Your task to perform on an android device: open a bookmark in the chrome app Image 0: 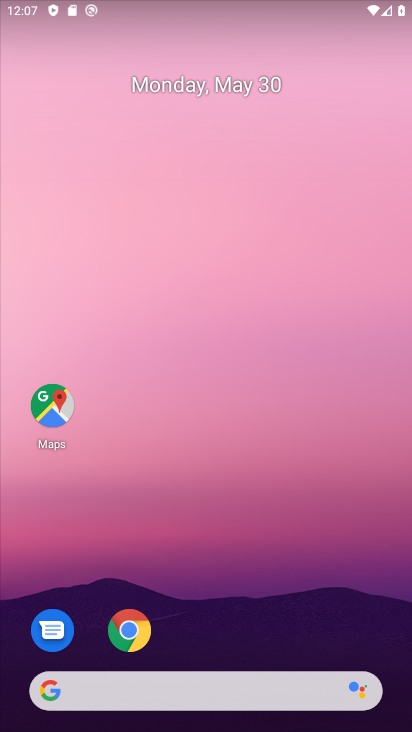
Step 0: click (125, 624)
Your task to perform on an android device: open a bookmark in the chrome app Image 1: 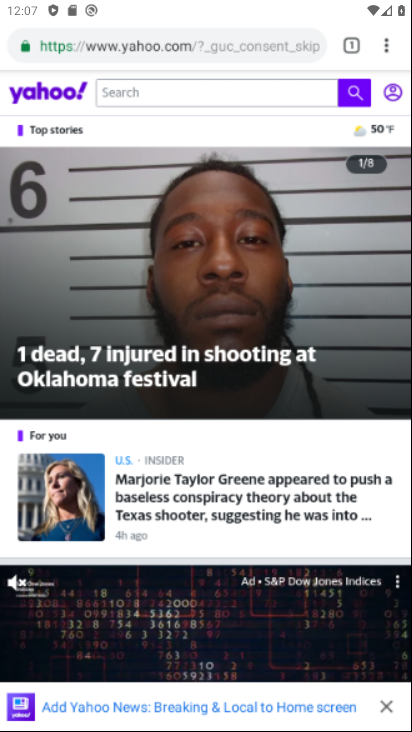
Step 1: click (383, 44)
Your task to perform on an android device: open a bookmark in the chrome app Image 2: 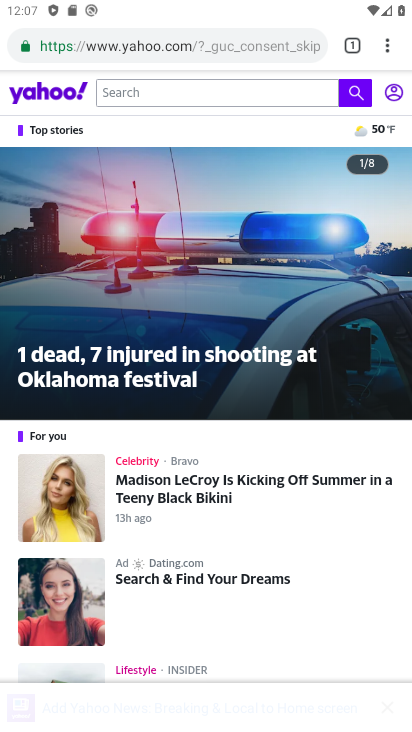
Step 2: click (386, 42)
Your task to perform on an android device: open a bookmark in the chrome app Image 3: 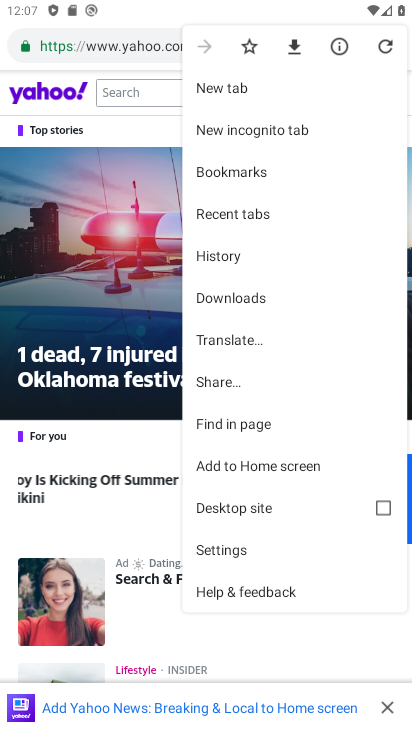
Step 3: click (238, 174)
Your task to perform on an android device: open a bookmark in the chrome app Image 4: 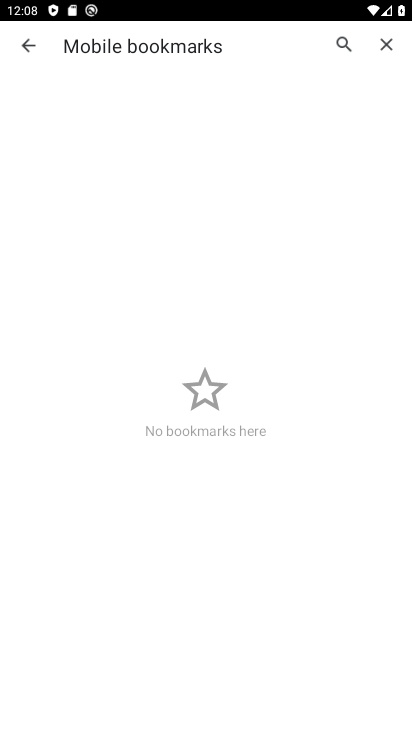
Step 4: task complete